Your task to perform on an android device: Open the calendar and show me this week's events Image 0: 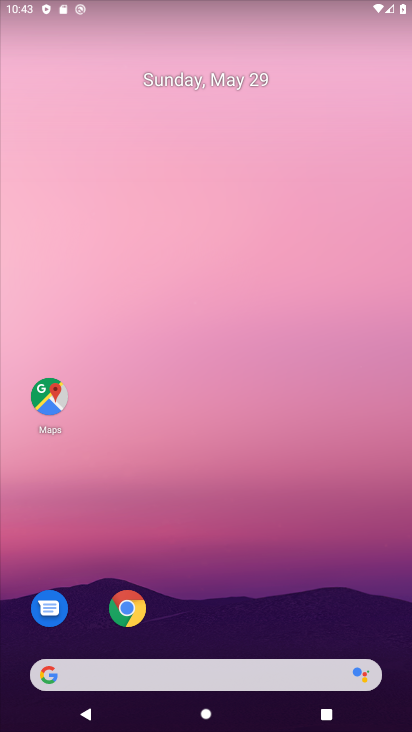
Step 0: drag from (172, 591) to (124, 67)
Your task to perform on an android device: Open the calendar and show me this week's events Image 1: 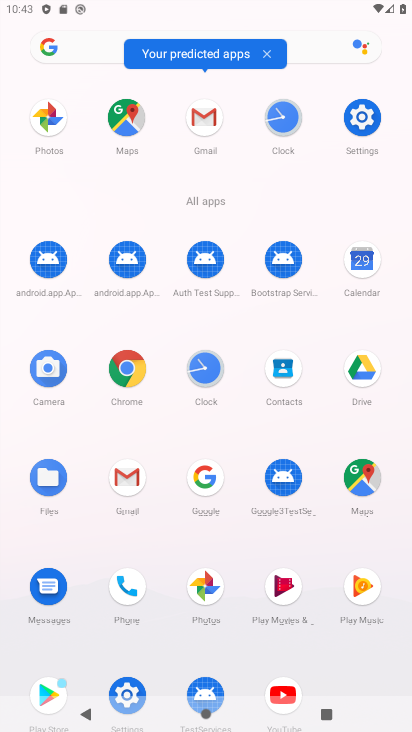
Step 1: click (361, 269)
Your task to perform on an android device: Open the calendar and show me this week's events Image 2: 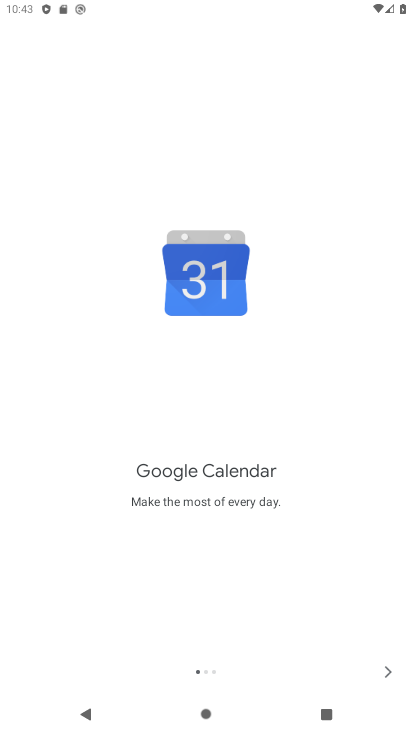
Step 2: click (388, 666)
Your task to perform on an android device: Open the calendar and show me this week's events Image 3: 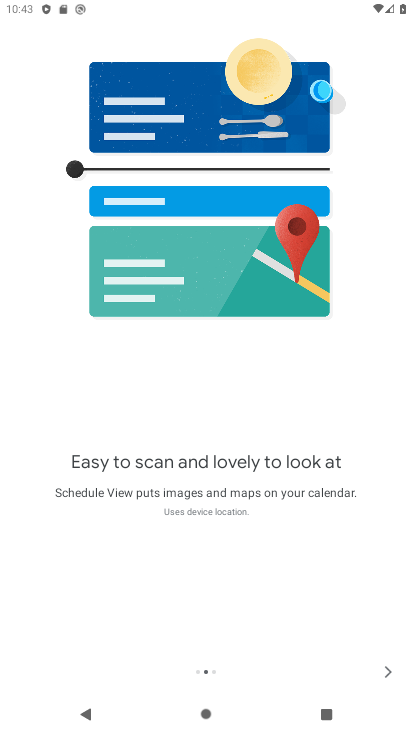
Step 3: click (395, 672)
Your task to perform on an android device: Open the calendar and show me this week's events Image 4: 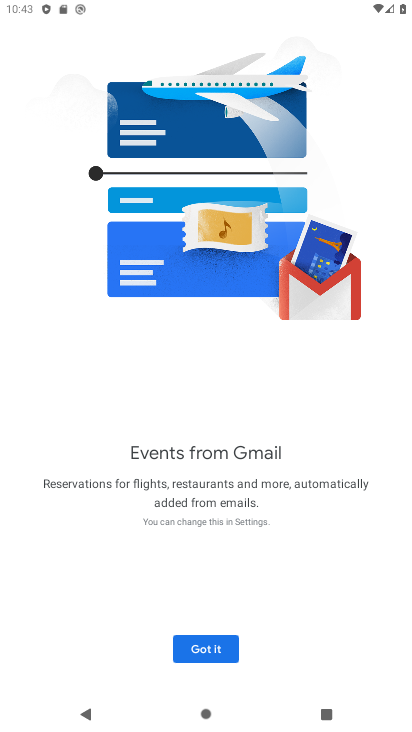
Step 4: click (228, 642)
Your task to perform on an android device: Open the calendar and show me this week's events Image 5: 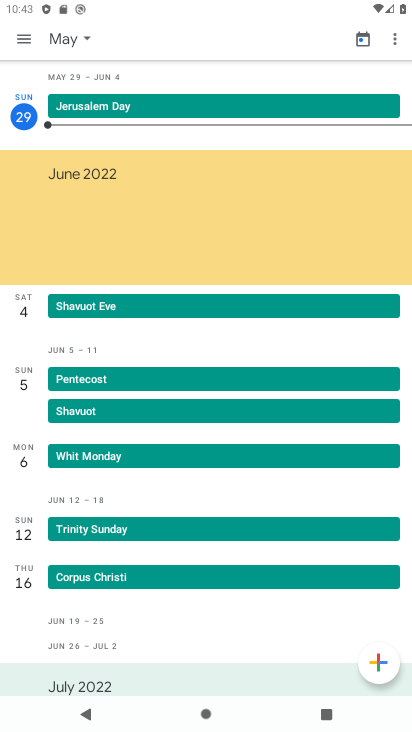
Step 5: click (18, 32)
Your task to perform on an android device: Open the calendar and show me this week's events Image 6: 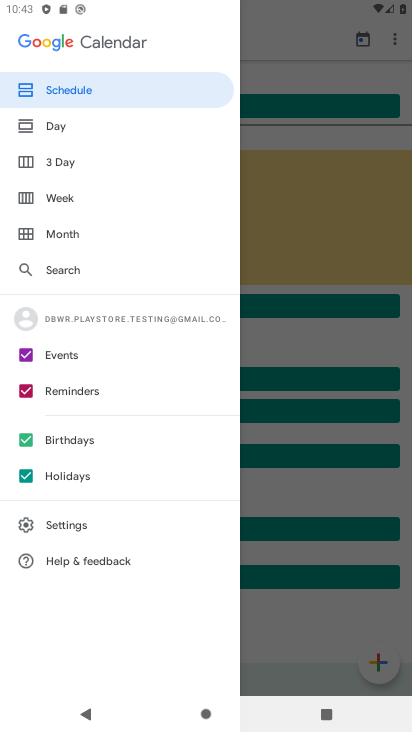
Step 6: click (25, 472)
Your task to perform on an android device: Open the calendar and show me this week's events Image 7: 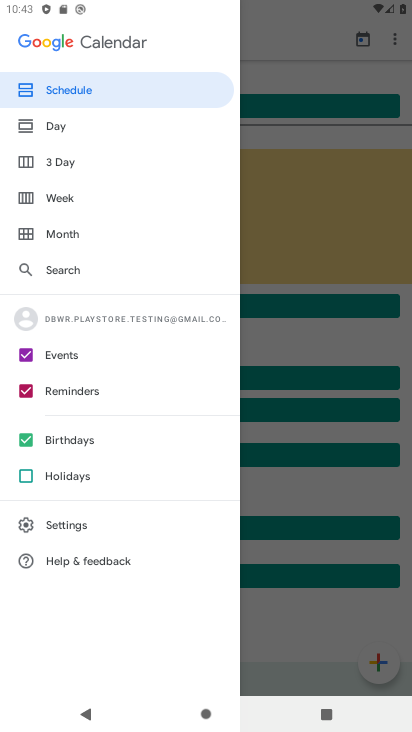
Step 7: click (22, 441)
Your task to perform on an android device: Open the calendar and show me this week's events Image 8: 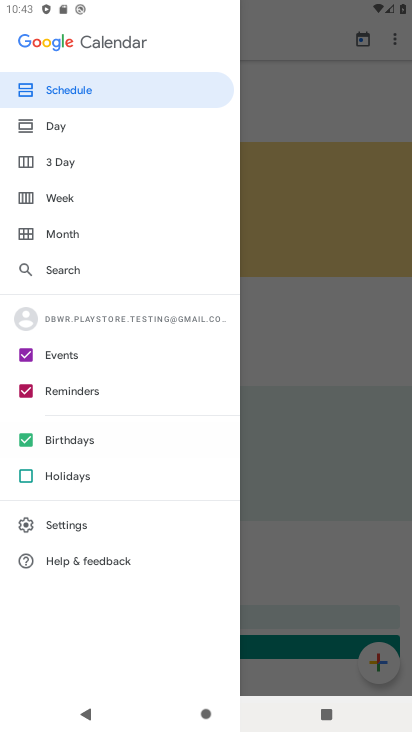
Step 8: click (29, 390)
Your task to perform on an android device: Open the calendar and show me this week's events Image 9: 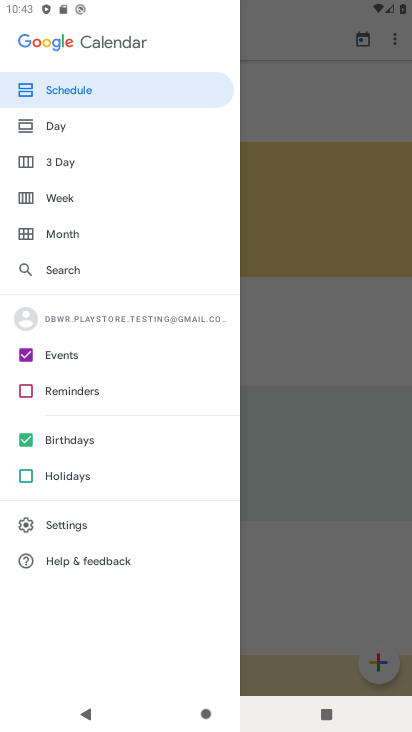
Step 9: click (29, 439)
Your task to perform on an android device: Open the calendar and show me this week's events Image 10: 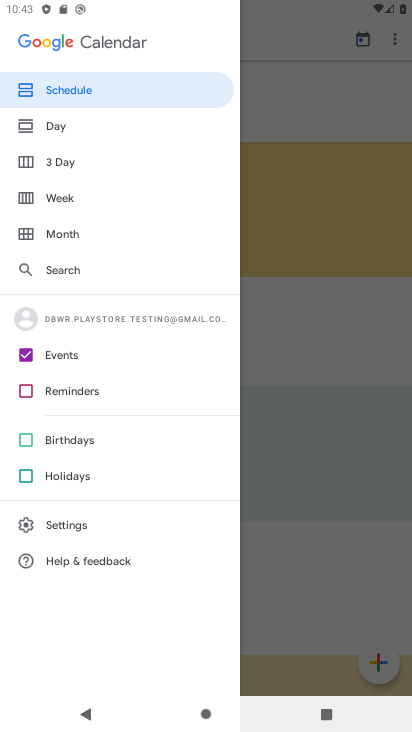
Step 10: click (77, 202)
Your task to perform on an android device: Open the calendar and show me this week's events Image 11: 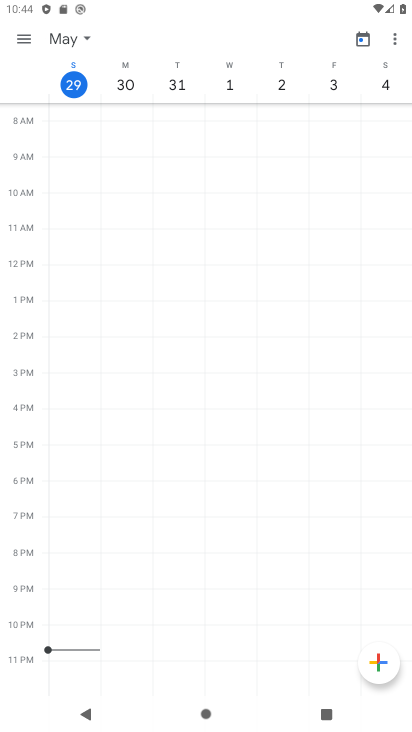
Step 11: task complete